Your task to perform on an android device: Go to location settings Image 0: 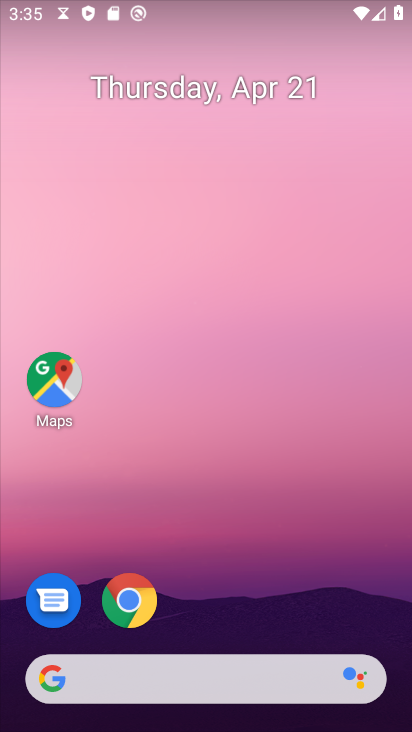
Step 0: drag from (232, 608) to (252, 110)
Your task to perform on an android device: Go to location settings Image 1: 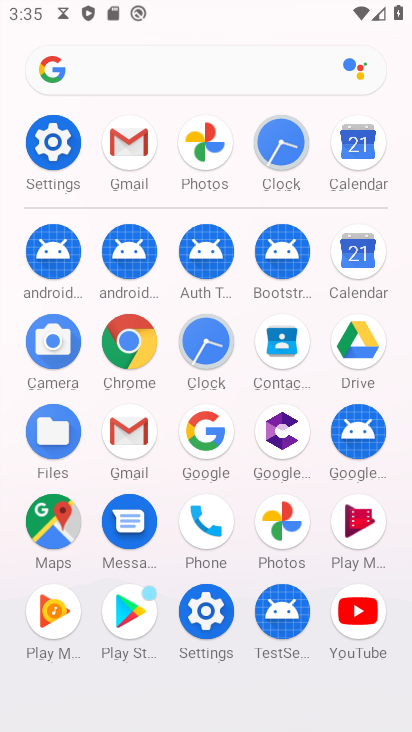
Step 1: click (53, 141)
Your task to perform on an android device: Go to location settings Image 2: 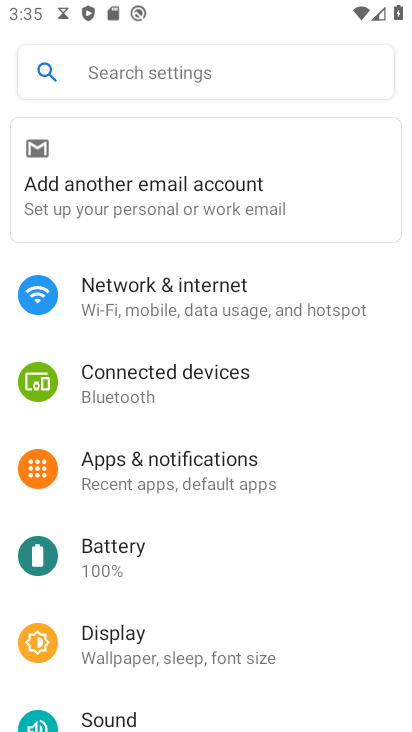
Step 2: drag from (196, 533) to (252, 427)
Your task to perform on an android device: Go to location settings Image 3: 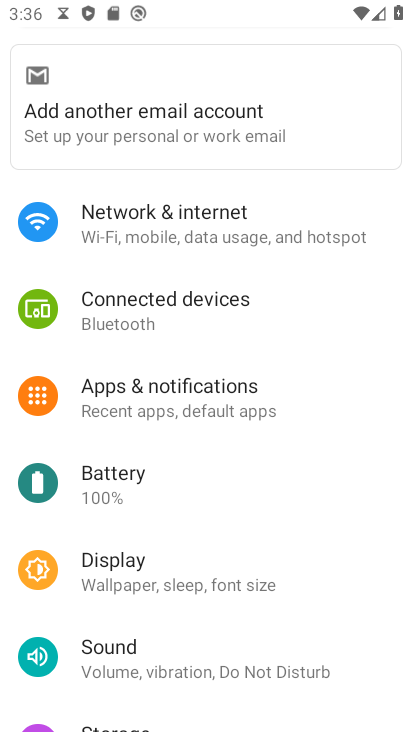
Step 3: drag from (189, 512) to (249, 414)
Your task to perform on an android device: Go to location settings Image 4: 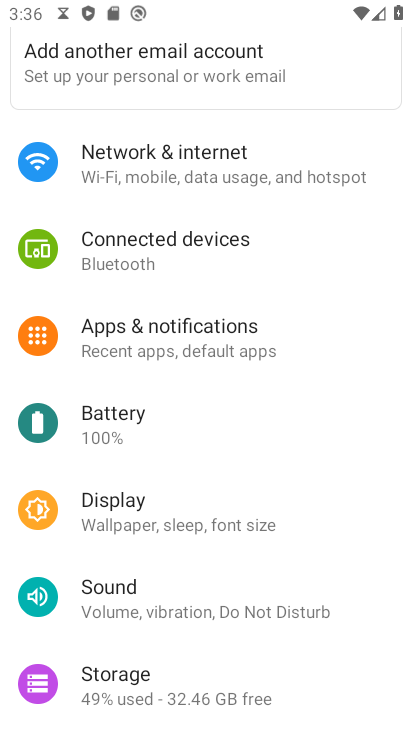
Step 4: drag from (205, 463) to (245, 391)
Your task to perform on an android device: Go to location settings Image 5: 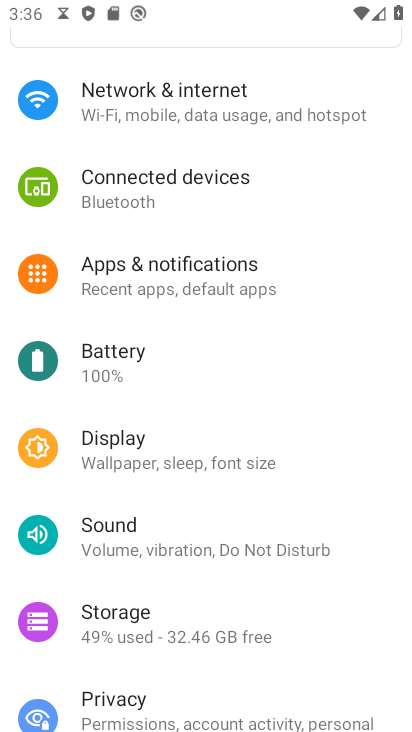
Step 5: drag from (177, 518) to (260, 388)
Your task to perform on an android device: Go to location settings Image 6: 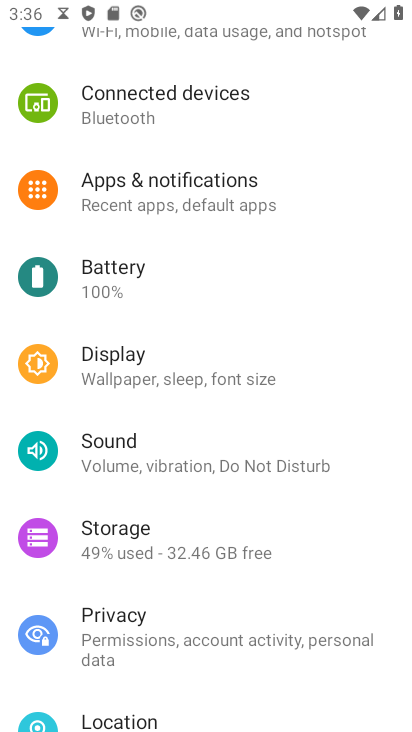
Step 6: drag from (189, 491) to (278, 358)
Your task to perform on an android device: Go to location settings Image 7: 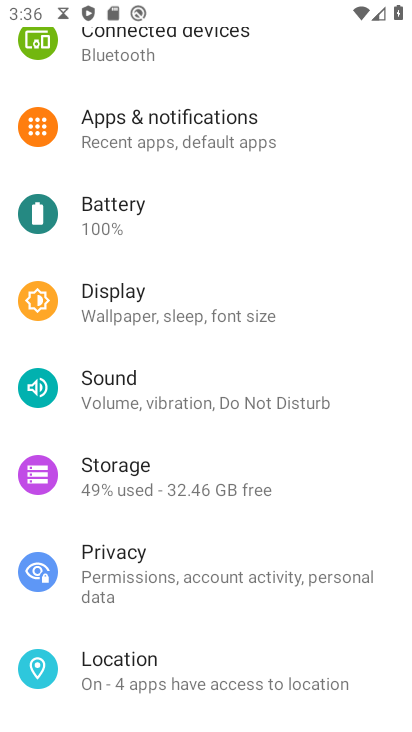
Step 7: click (136, 658)
Your task to perform on an android device: Go to location settings Image 8: 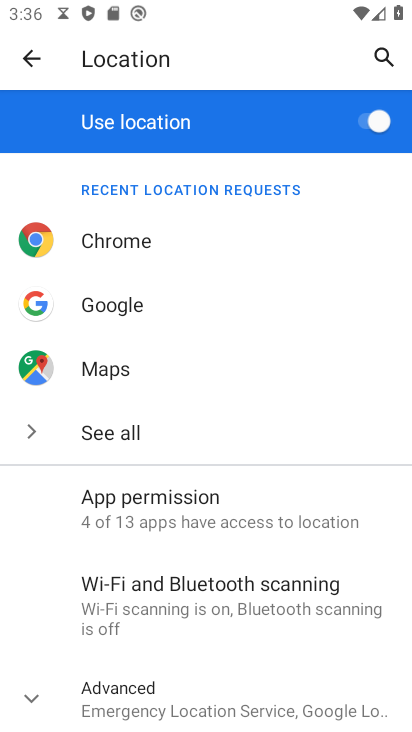
Step 8: task complete